Your task to perform on an android device: What's the latest video from GameSpot News? Image 0: 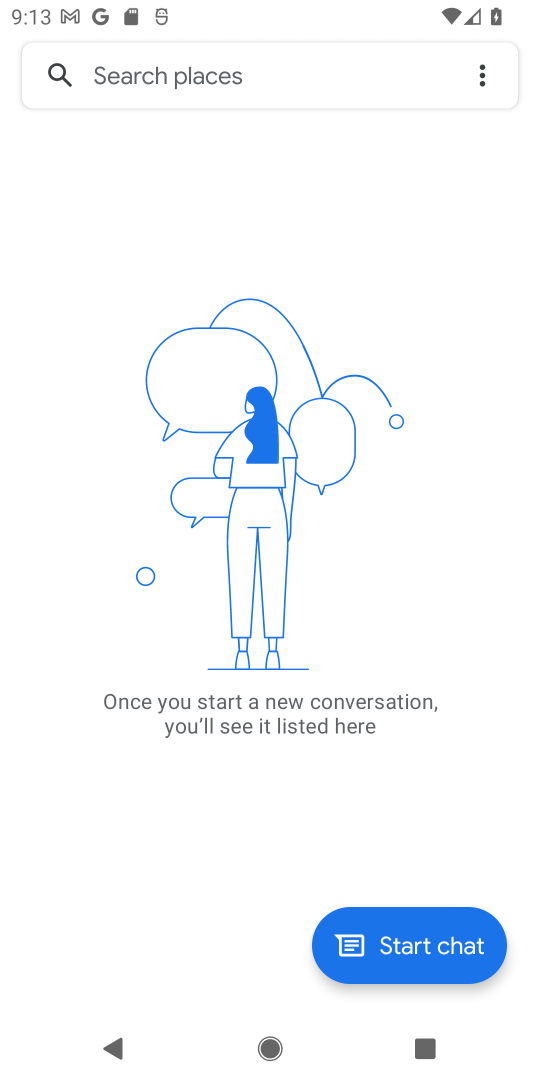
Step 0: press home button
Your task to perform on an android device: What's the latest video from GameSpot News? Image 1: 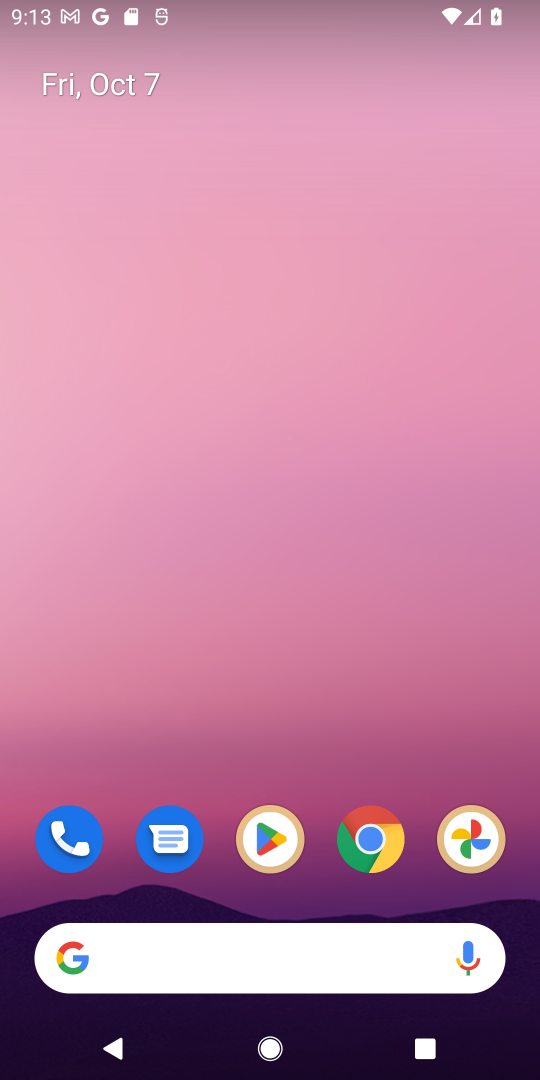
Step 1: click (360, 843)
Your task to perform on an android device: What's the latest video from GameSpot News? Image 2: 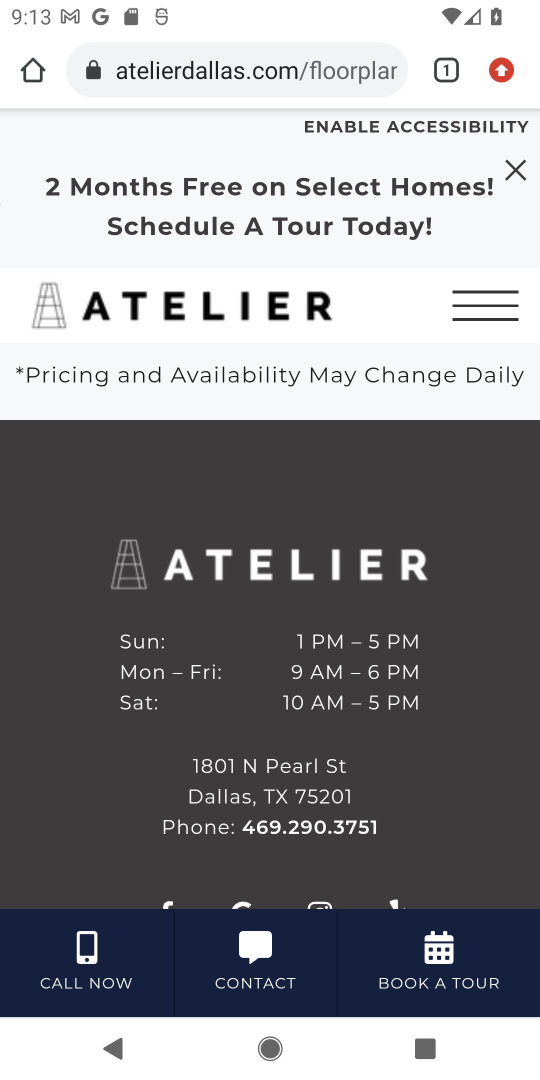
Step 2: click (284, 67)
Your task to perform on an android device: What's the latest video from GameSpot News? Image 3: 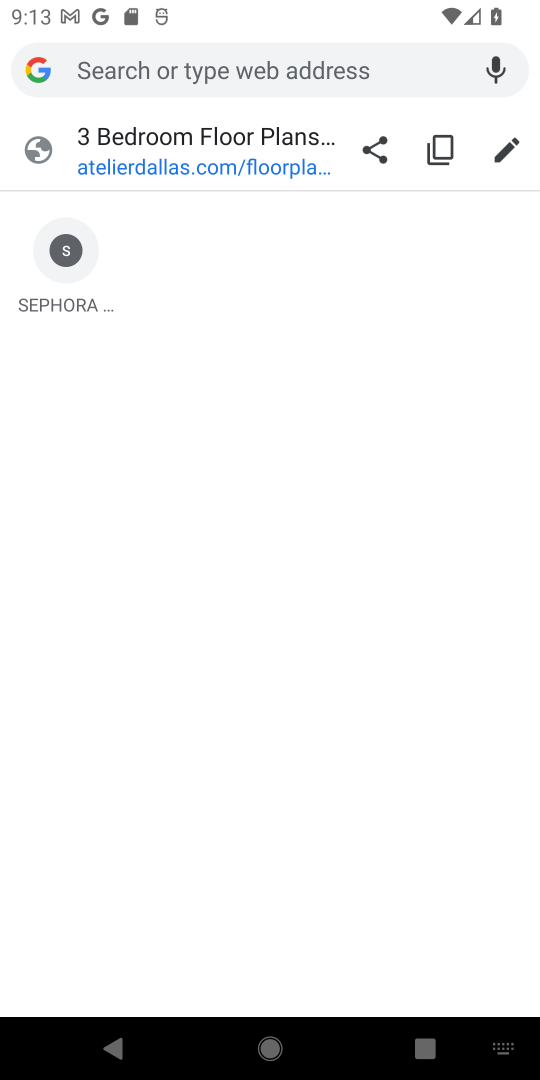
Step 3: type "gamespot news"
Your task to perform on an android device: What's the latest video from GameSpot News? Image 4: 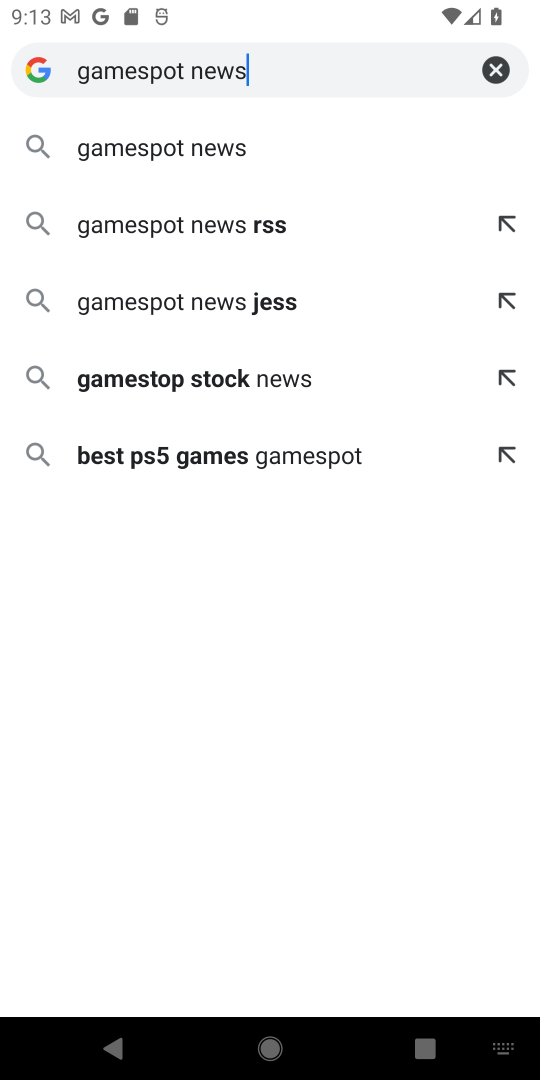
Step 4: click (115, 144)
Your task to perform on an android device: What's the latest video from GameSpot News? Image 5: 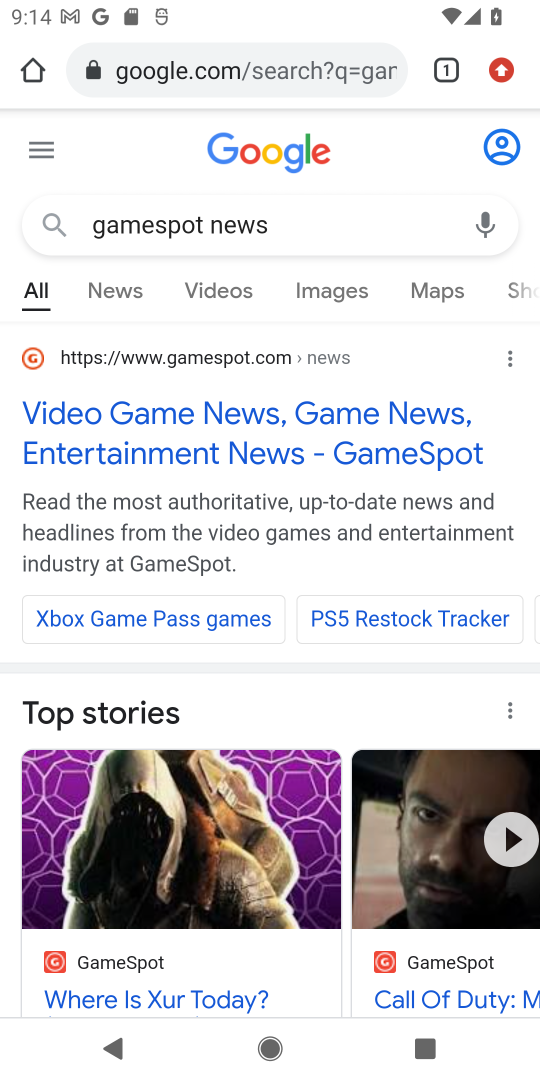
Step 5: click (140, 406)
Your task to perform on an android device: What's the latest video from GameSpot News? Image 6: 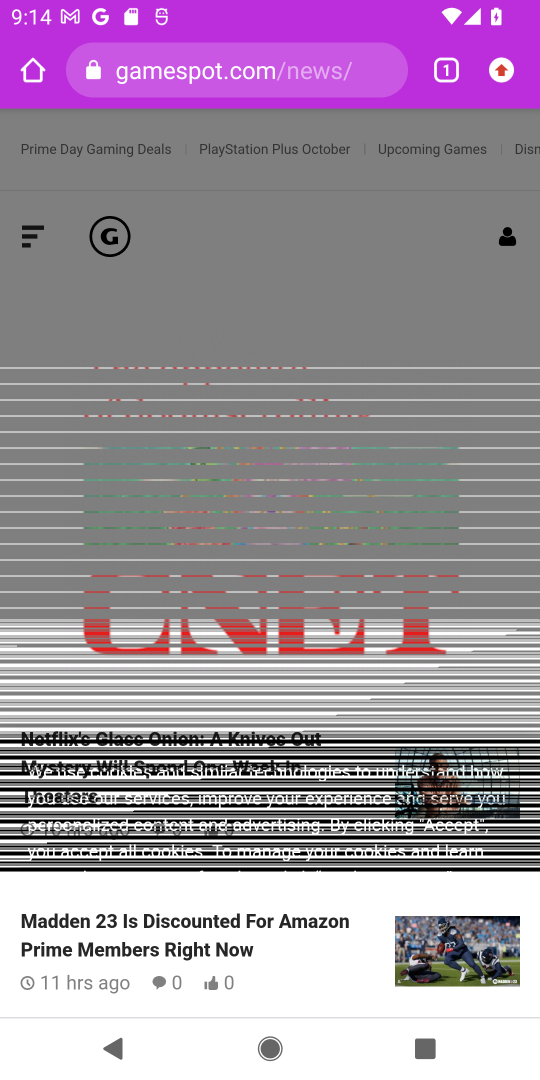
Step 6: drag from (178, 780) to (389, 735)
Your task to perform on an android device: What's the latest video from GameSpot News? Image 7: 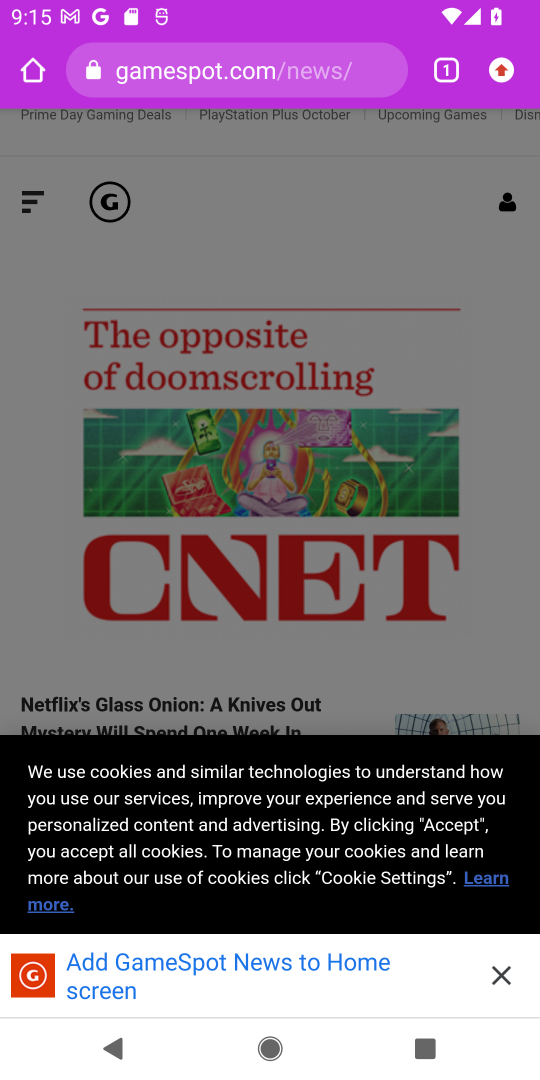
Step 7: click (509, 968)
Your task to perform on an android device: What's the latest video from GameSpot News? Image 8: 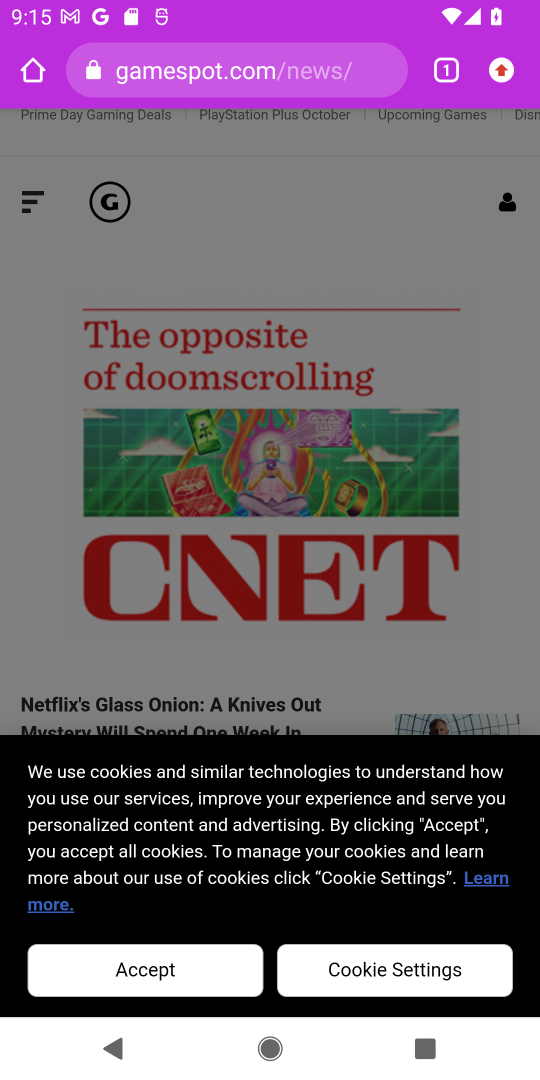
Step 8: task complete